Your task to perform on an android device: set the stopwatch Image 0: 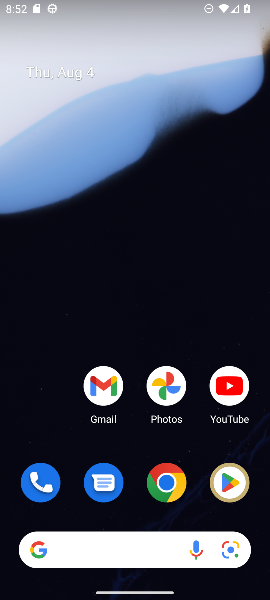
Step 0: press home button
Your task to perform on an android device: set the stopwatch Image 1: 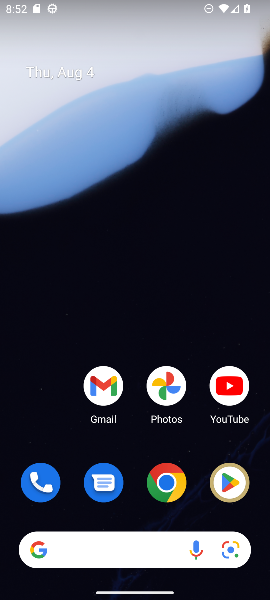
Step 1: drag from (145, 457) to (171, 12)
Your task to perform on an android device: set the stopwatch Image 2: 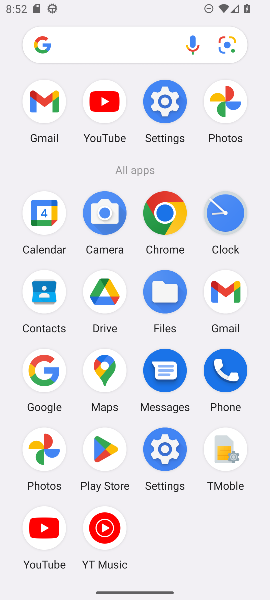
Step 2: click (220, 214)
Your task to perform on an android device: set the stopwatch Image 3: 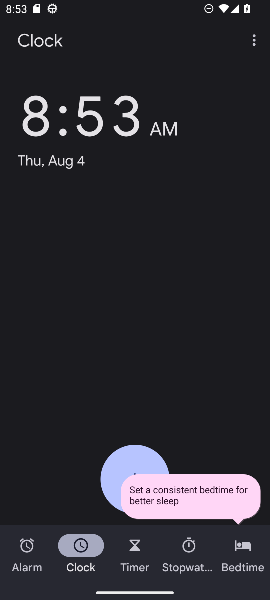
Step 3: click (186, 547)
Your task to perform on an android device: set the stopwatch Image 4: 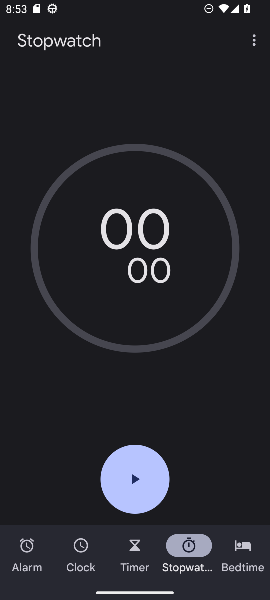
Step 4: click (137, 474)
Your task to perform on an android device: set the stopwatch Image 5: 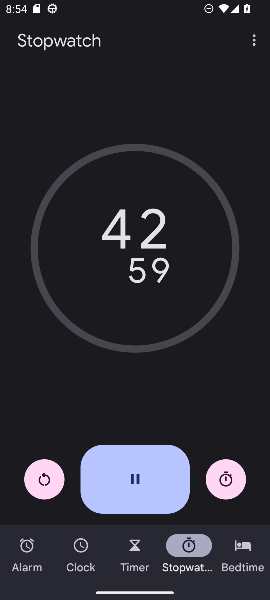
Step 5: task complete